Your task to perform on an android device: refresh tabs in the chrome app Image 0: 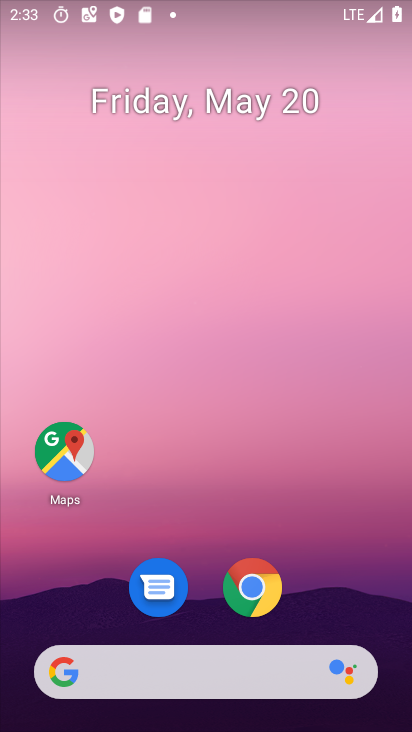
Step 0: click (245, 581)
Your task to perform on an android device: refresh tabs in the chrome app Image 1: 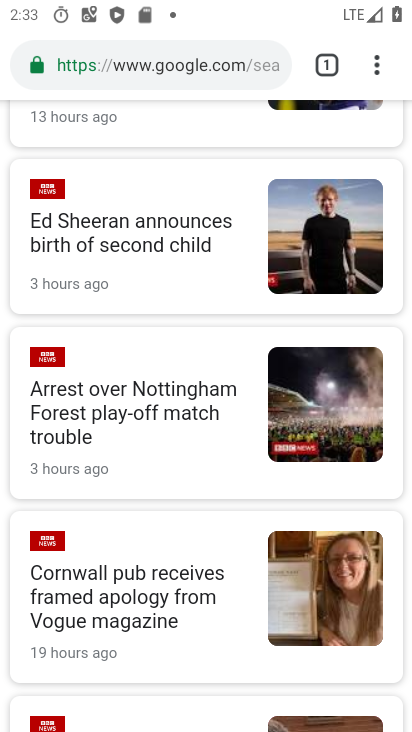
Step 1: click (376, 65)
Your task to perform on an android device: refresh tabs in the chrome app Image 2: 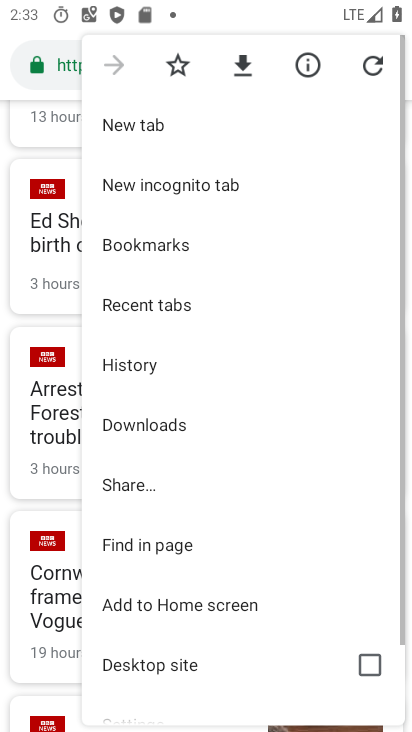
Step 2: click (374, 66)
Your task to perform on an android device: refresh tabs in the chrome app Image 3: 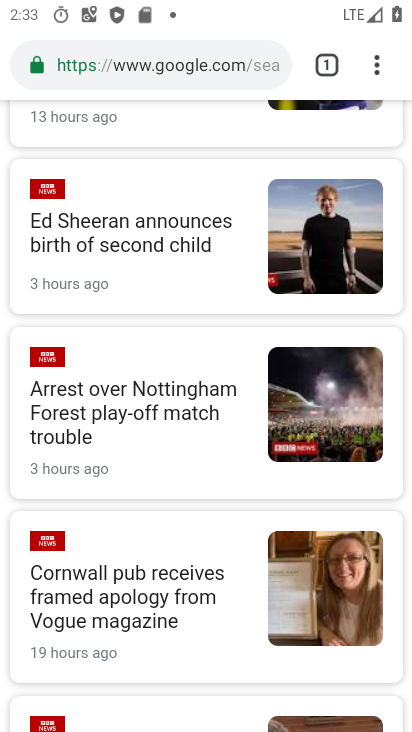
Step 3: task complete